Your task to perform on an android device: set default search engine in the chrome app Image 0: 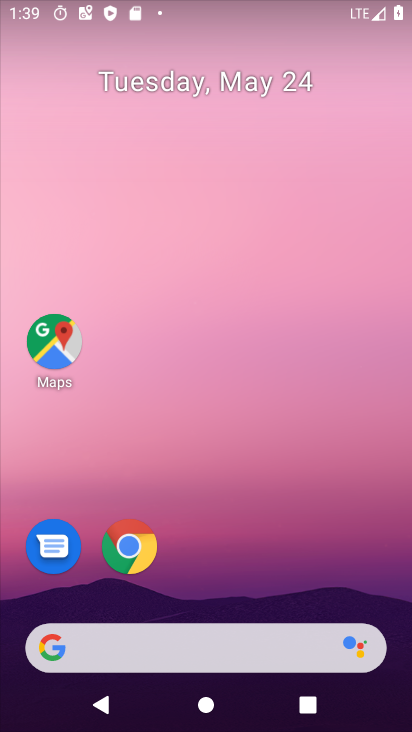
Step 0: drag from (190, 590) to (335, 1)
Your task to perform on an android device: set default search engine in the chrome app Image 1: 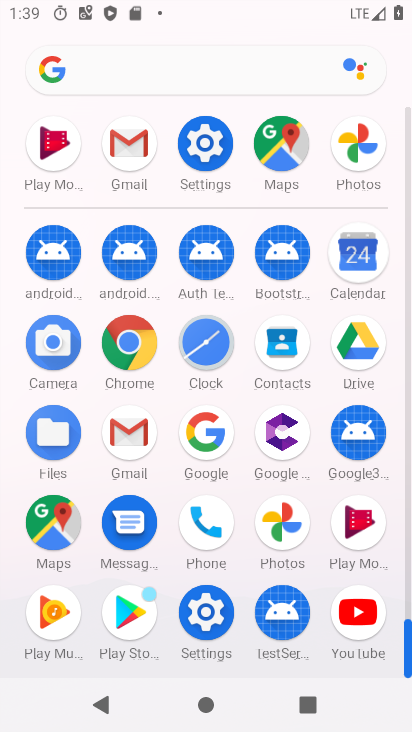
Step 1: click (131, 342)
Your task to perform on an android device: set default search engine in the chrome app Image 2: 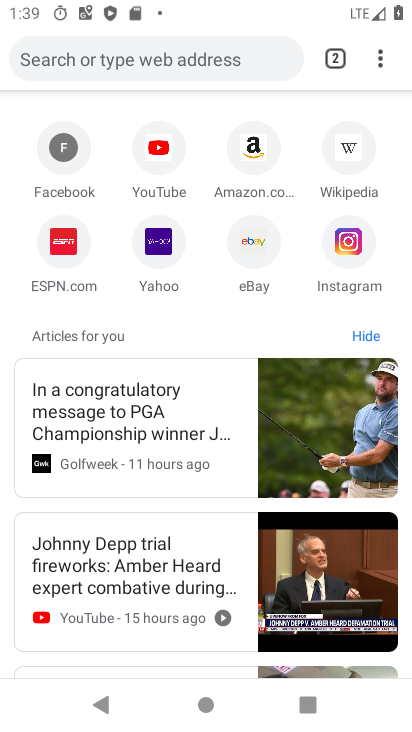
Step 2: drag from (203, 183) to (218, 463)
Your task to perform on an android device: set default search engine in the chrome app Image 3: 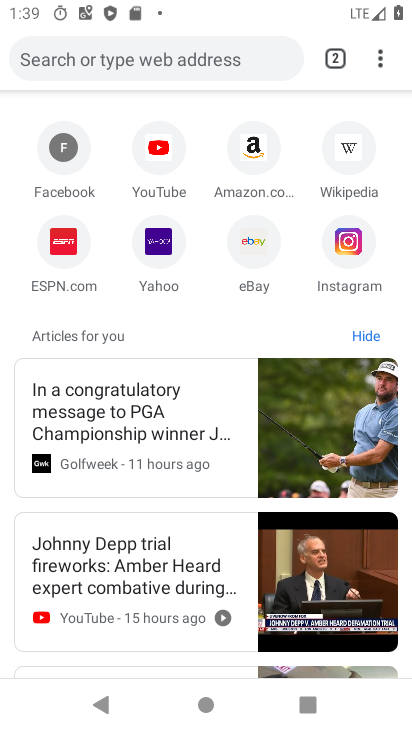
Step 3: click (383, 60)
Your task to perform on an android device: set default search engine in the chrome app Image 4: 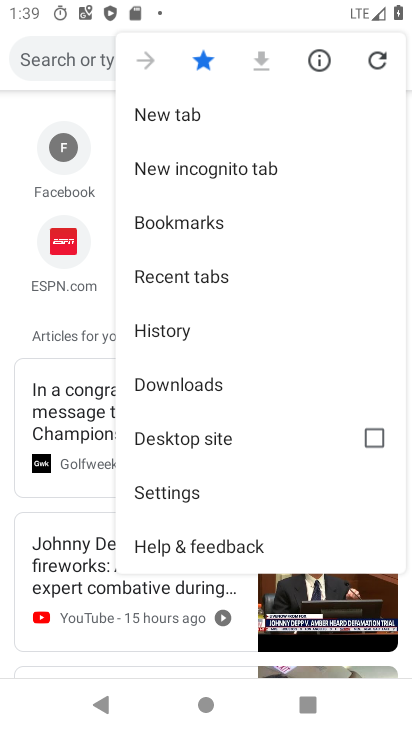
Step 4: click (210, 492)
Your task to perform on an android device: set default search engine in the chrome app Image 5: 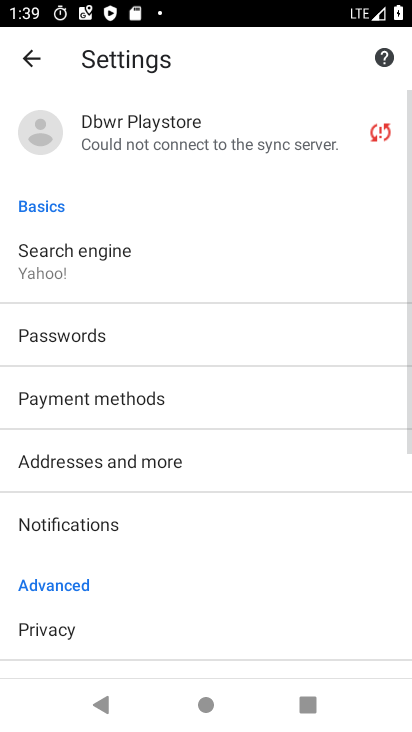
Step 5: drag from (225, 543) to (268, 1)
Your task to perform on an android device: set default search engine in the chrome app Image 6: 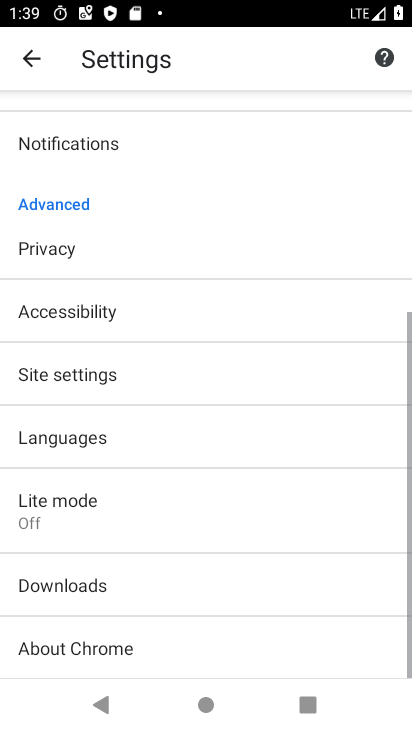
Step 6: drag from (155, 591) to (228, 104)
Your task to perform on an android device: set default search engine in the chrome app Image 7: 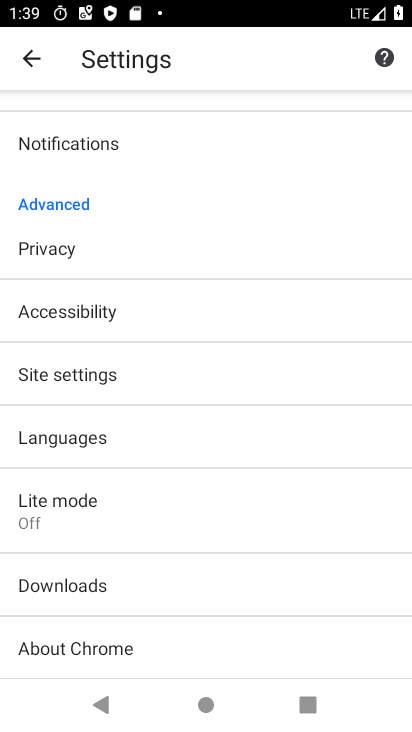
Step 7: drag from (140, 588) to (199, 257)
Your task to perform on an android device: set default search engine in the chrome app Image 8: 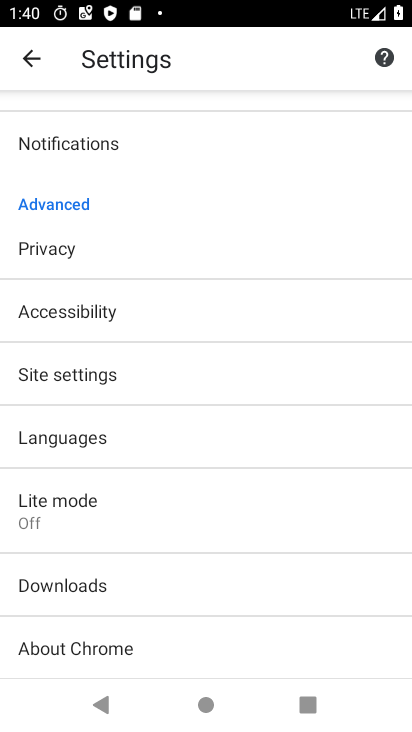
Step 8: drag from (226, 182) to (231, 713)
Your task to perform on an android device: set default search engine in the chrome app Image 9: 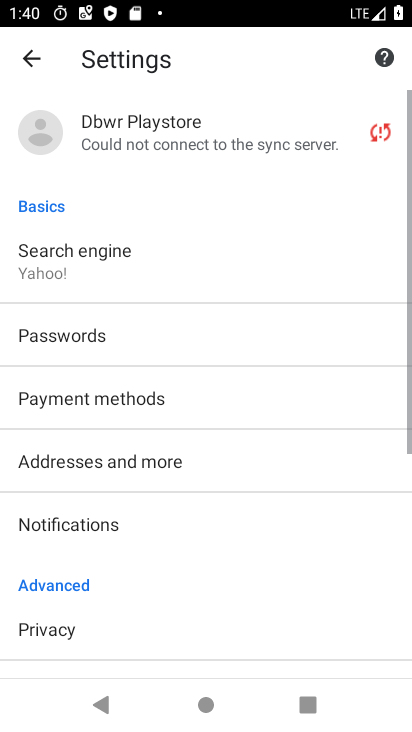
Step 9: click (121, 262)
Your task to perform on an android device: set default search engine in the chrome app Image 10: 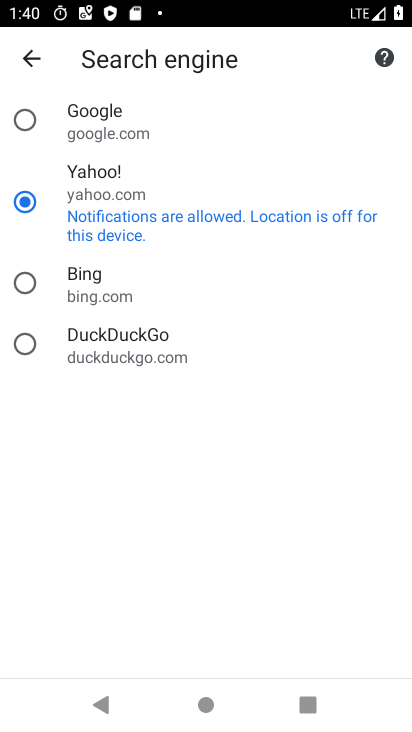
Step 10: click (38, 128)
Your task to perform on an android device: set default search engine in the chrome app Image 11: 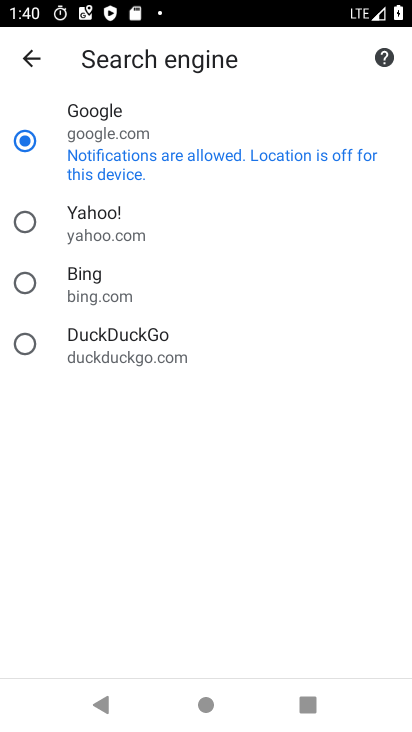
Step 11: task complete